Your task to perform on an android device: Open Yahoo.com Image 0: 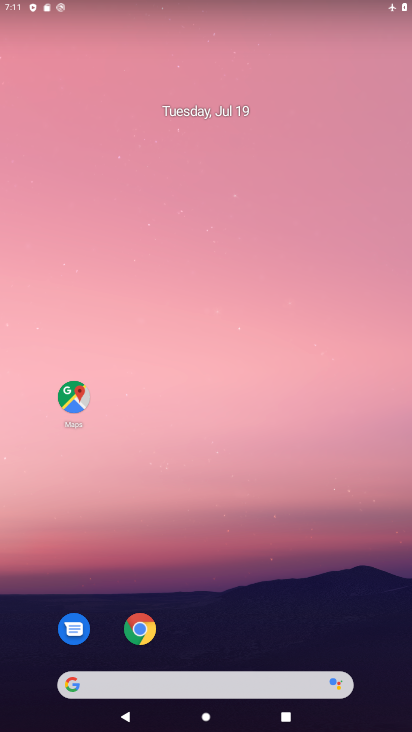
Step 0: click (198, 683)
Your task to perform on an android device: Open Yahoo.com Image 1: 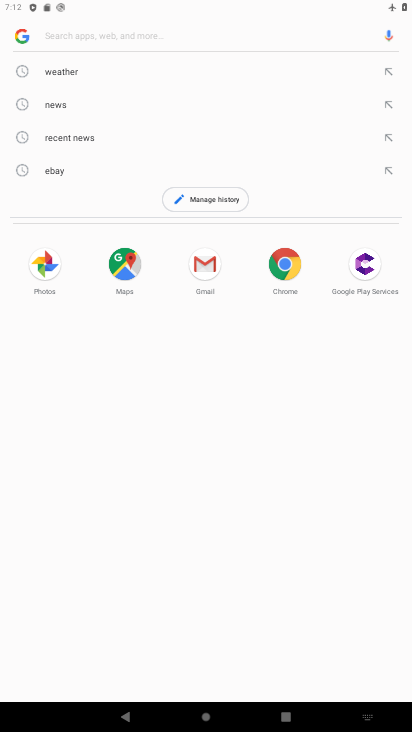
Step 1: type " Yahoo.com"
Your task to perform on an android device: Open Yahoo.com Image 2: 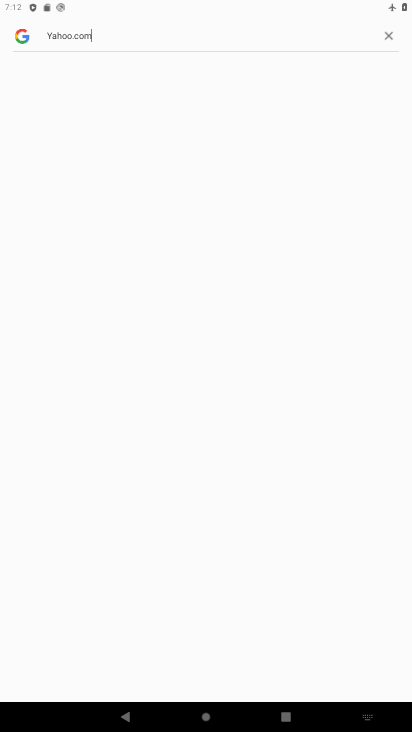
Step 2: press enter
Your task to perform on an android device: Open Yahoo.com Image 3: 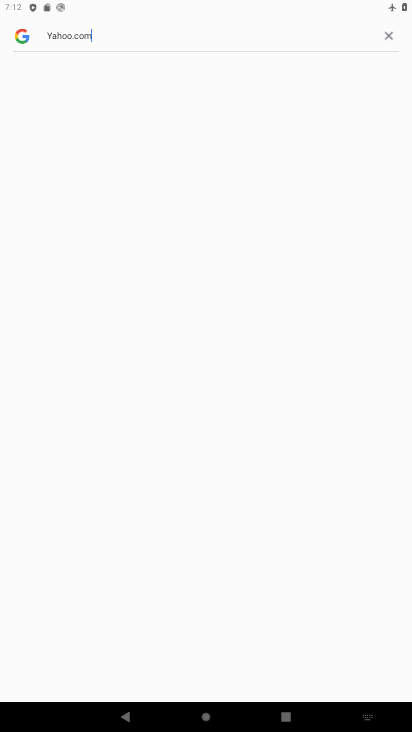
Step 3: type ""
Your task to perform on an android device: Open Yahoo.com Image 4: 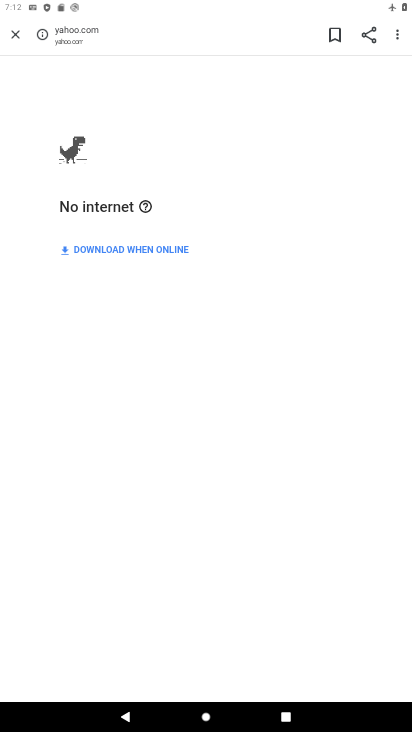
Step 4: task complete